Your task to perform on an android device: What's a good restaurant in Boston? Image 0: 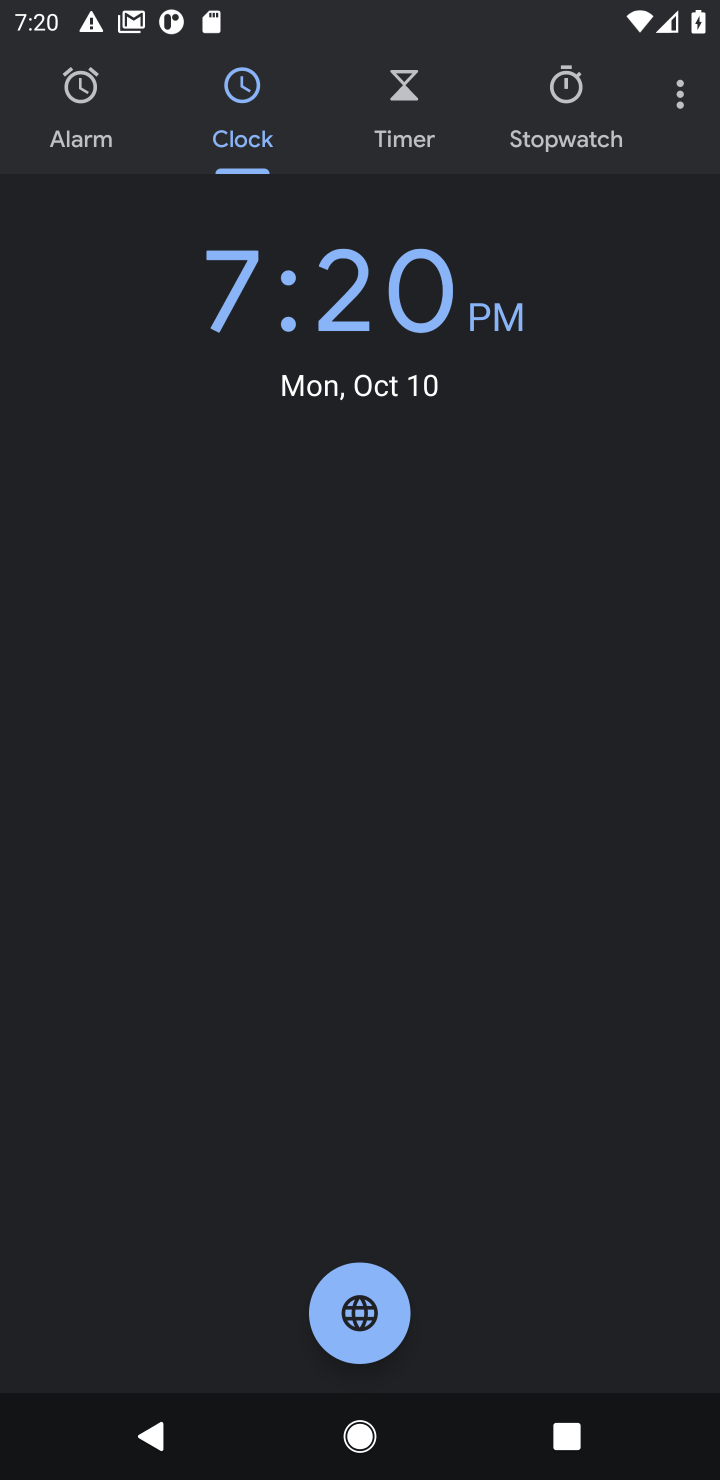
Step 0: press home button
Your task to perform on an android device: What's a good restaurant in Boston? Image 1: 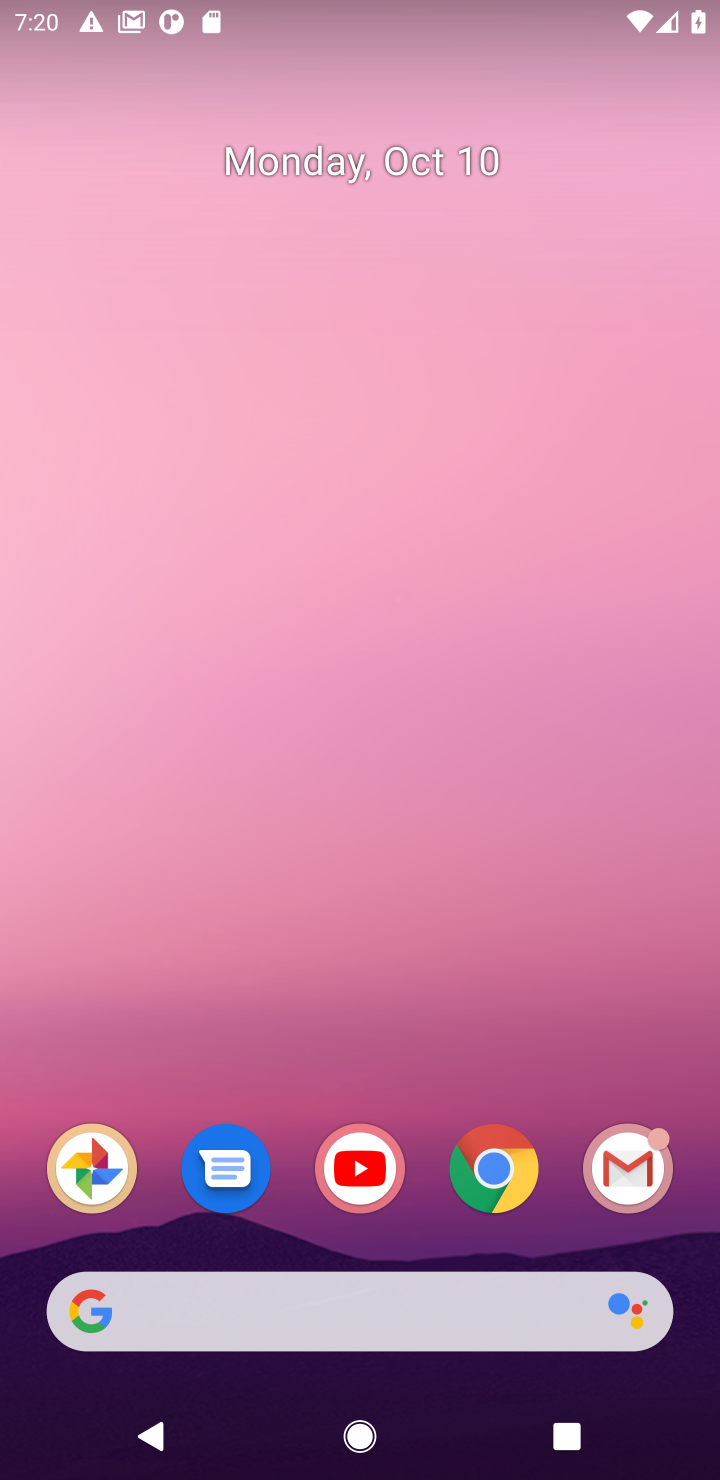
Step 1: click (496, 1187)
Your task to perform on an android device: What's a good restaurant in Boston? Image 2: 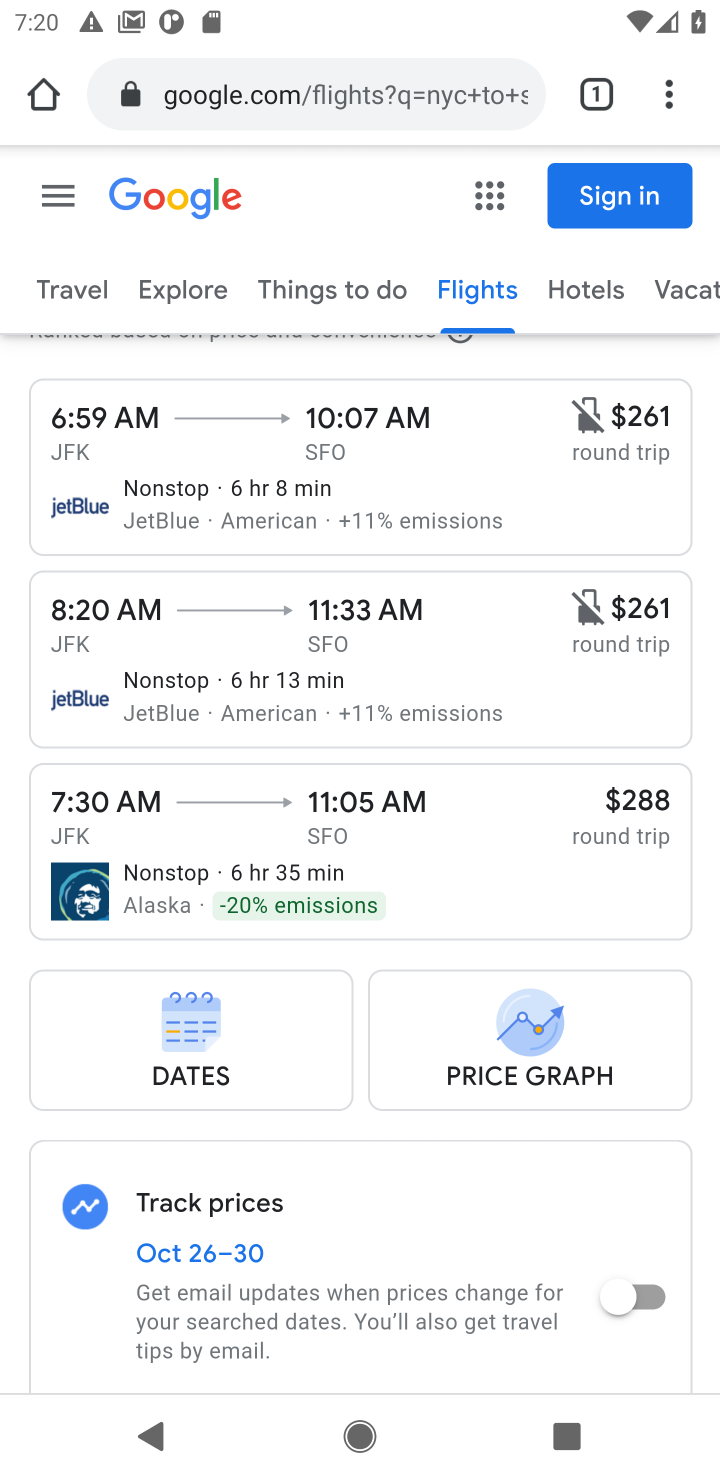
Step 2: click (349, 103)
Your task to perform on an android device: What's a good restaurant in Boston? Image 3: 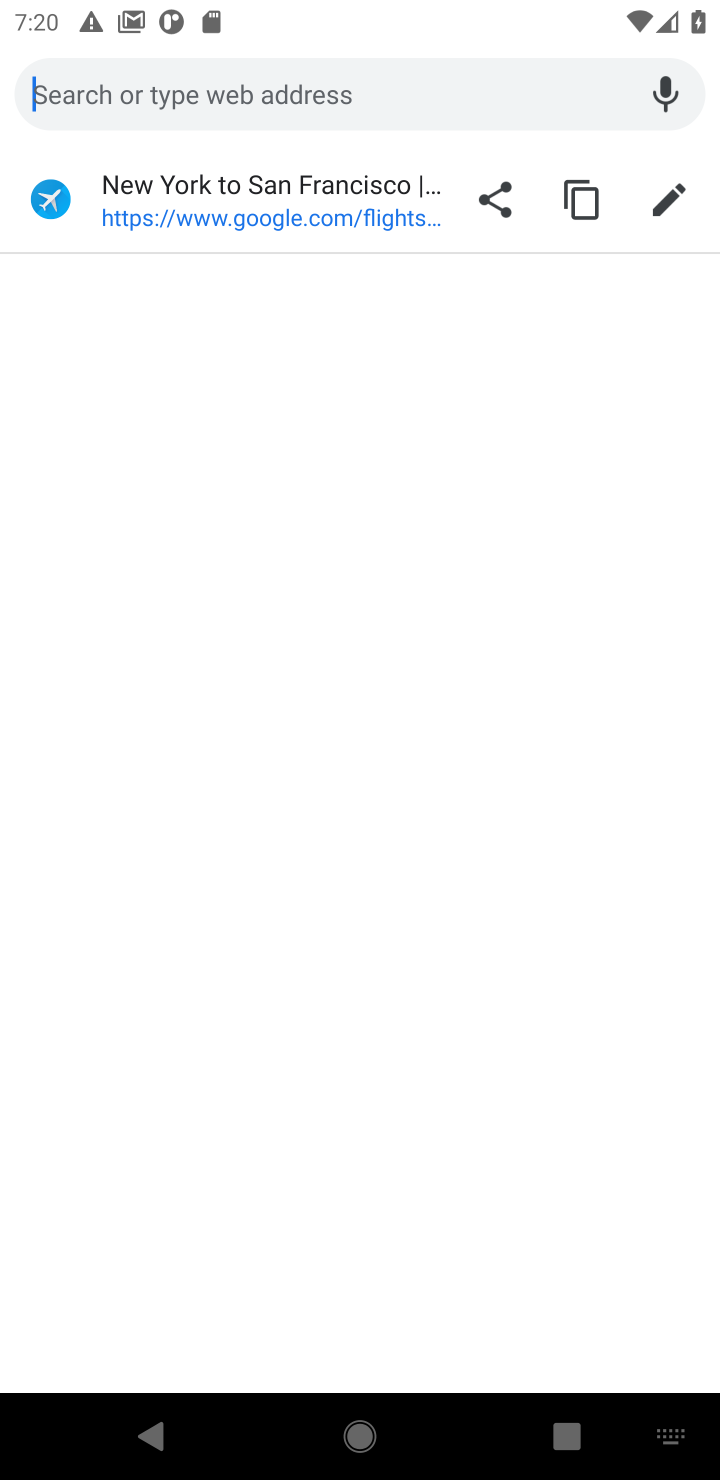
Step 3: type "good restaurant in boston"
Your task to perform on an android device: What's a good restaurant in Boston? Image 4: 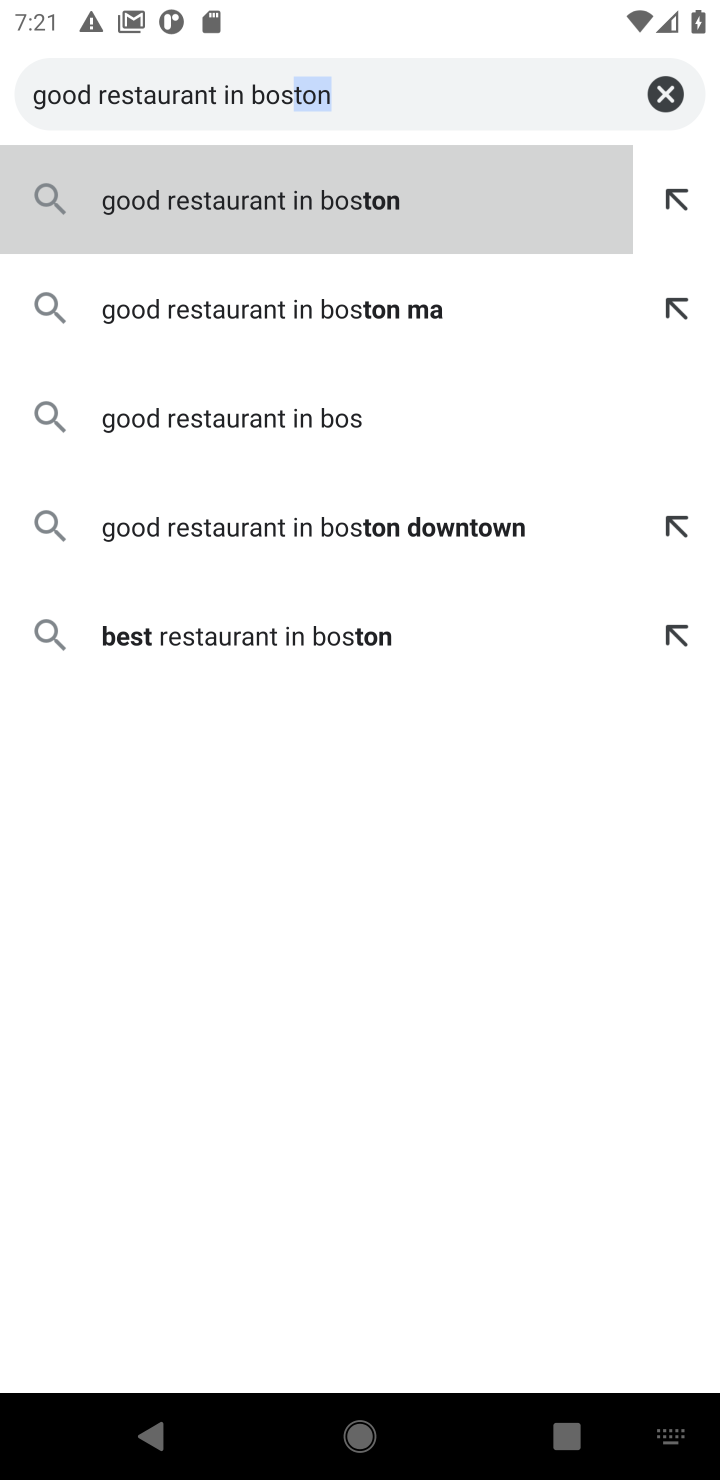
Step 4: click (283, 207)
Your task to perform on an android device: What's a good restaurant in Boston? Image 5: 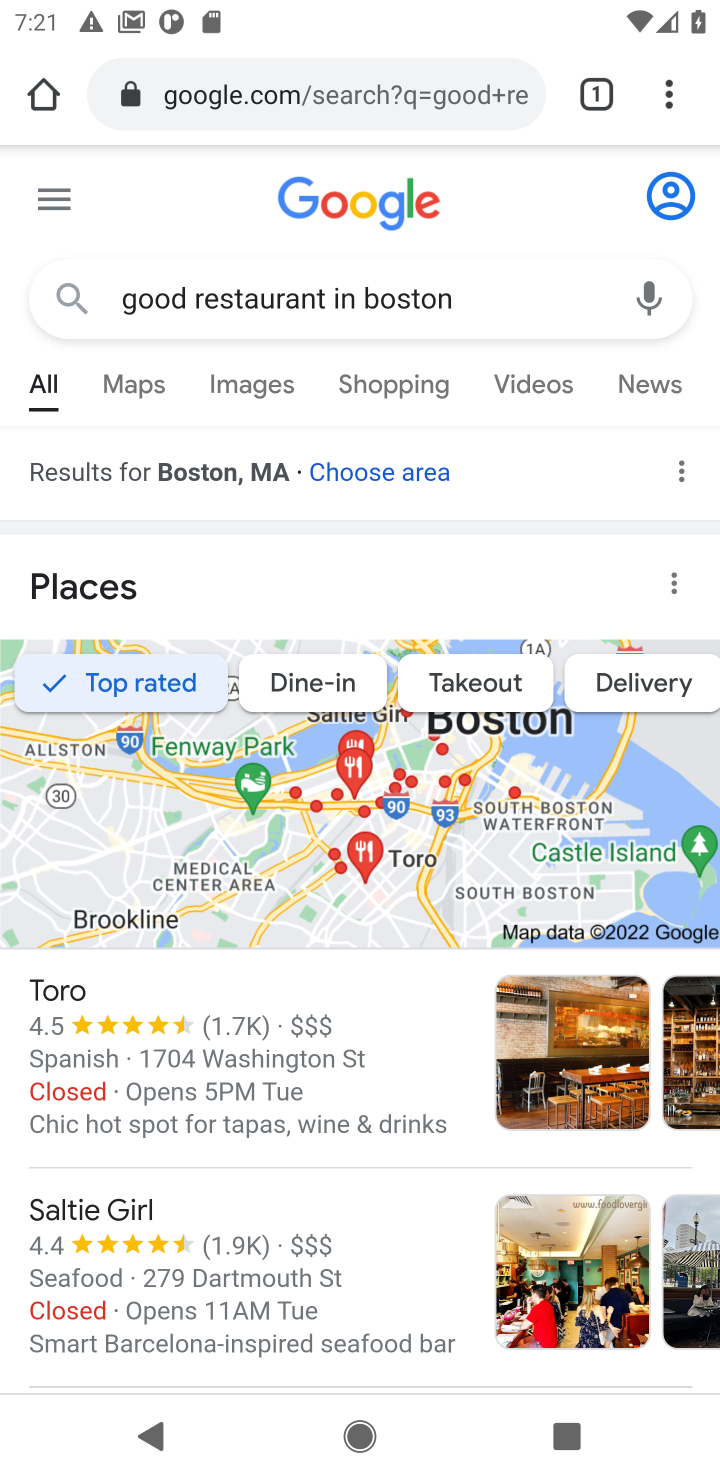
Step 5: task complete